Your task to perform on an android device: Open the calendar app, open the side menu, and click the "Day" option Image 0: 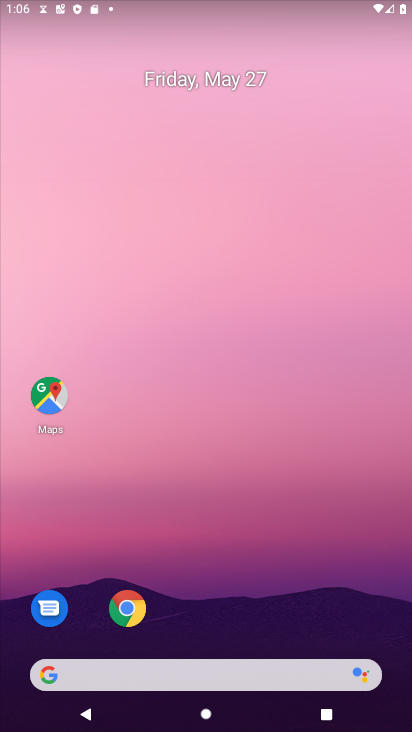
Step 0: drag from (279, 574) to (277, 119)
Your task to perform on an android device: Open the calendar app, open the side menu, and click the "Day" option Image 1: 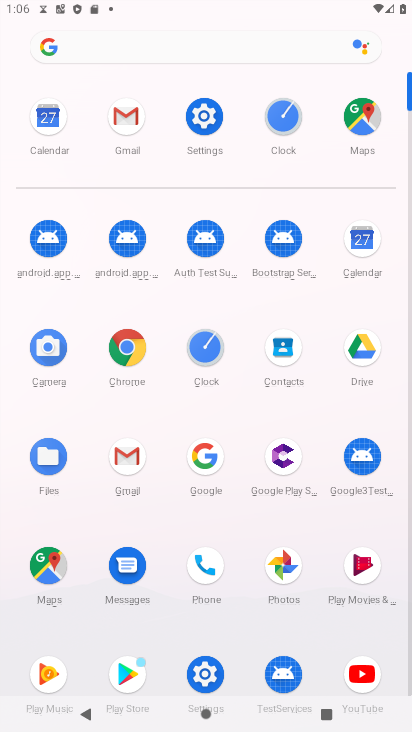
Step 1: click (364, 240)
Your task to perform on an android device: Open the calendar app, open the side menu, and click the "Day" option Image 2: 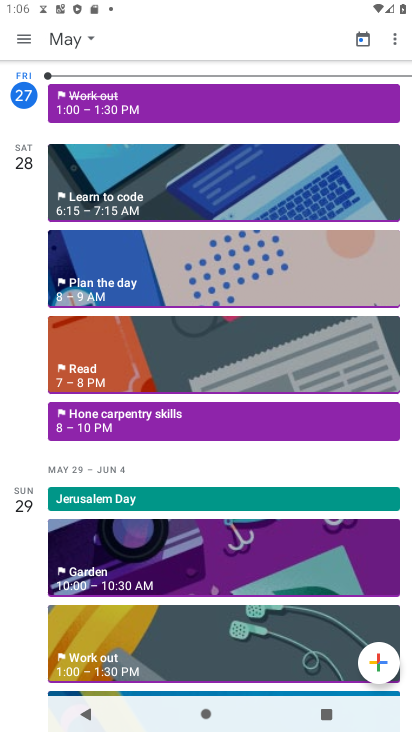
Step 2: click (17, 36)
Your task to perform on an android device: Open the calendar app, open the side menu, and click the "Day" option Image 3: 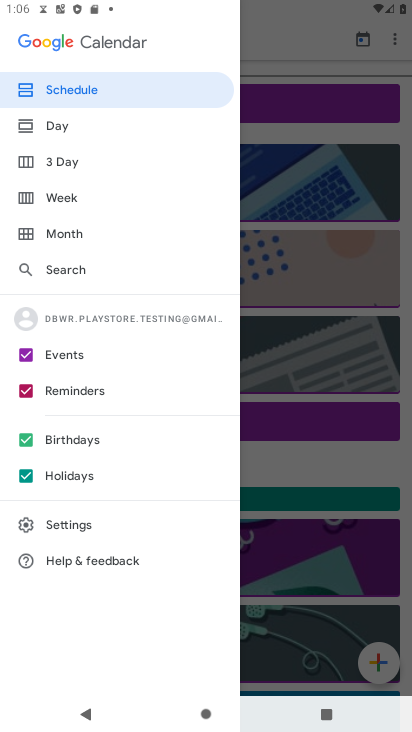
Step 3: click (85, 126)
Your task to perform on an android device: Open the calendar app, open the side menu, and click the "Day" option Image 4: 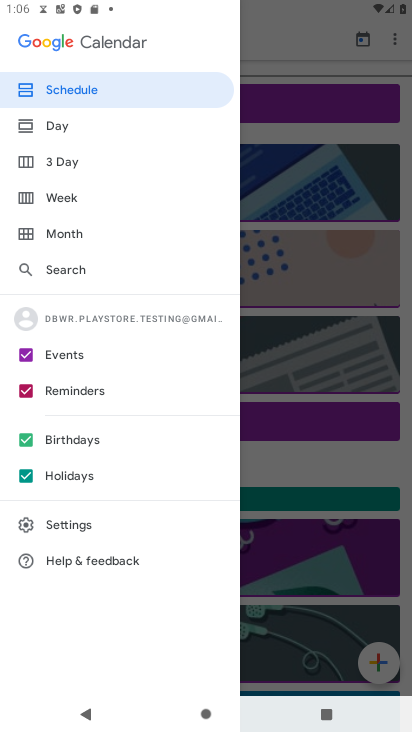
Step 4: click (55, 124)
Your task to perform on an android device: Open the calendar app, open the side menu, and click the "Day" option Image 5: 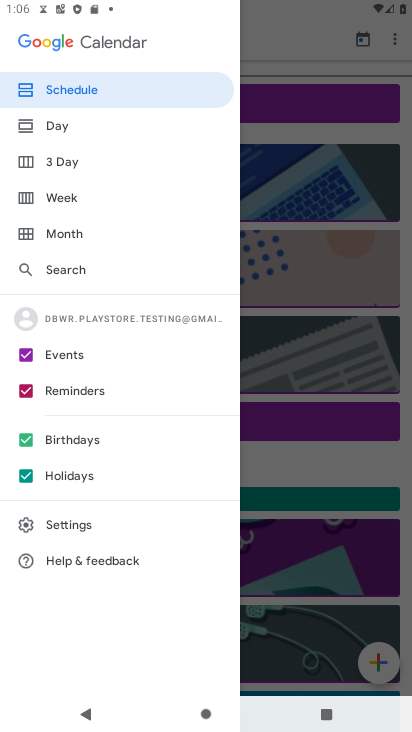
Step 5: click (72, 125)
Your task to perform on an android device: Open the calendar app, open the side menu, and click the "Day" option Image 6: 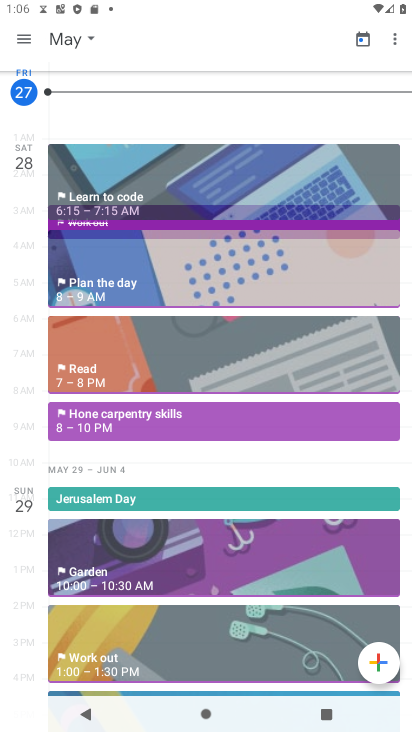
Step 6: task complete